Your task to perform on an android device: install app "Facebook" Image 0: 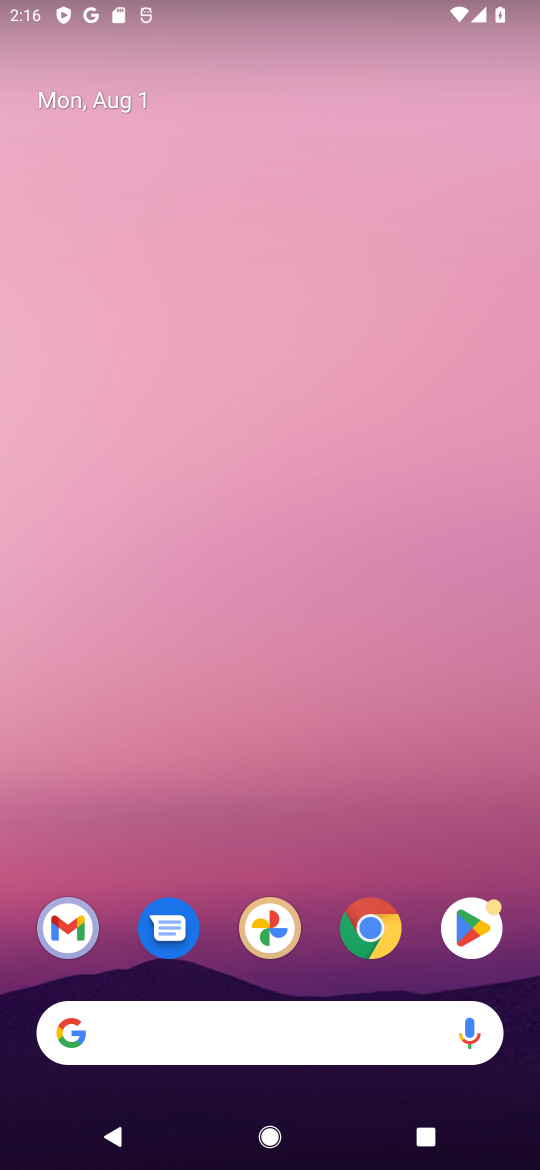
Step 0: click (458, 952)
Your task to perform on an android device: install app "Facebook" Image 1: 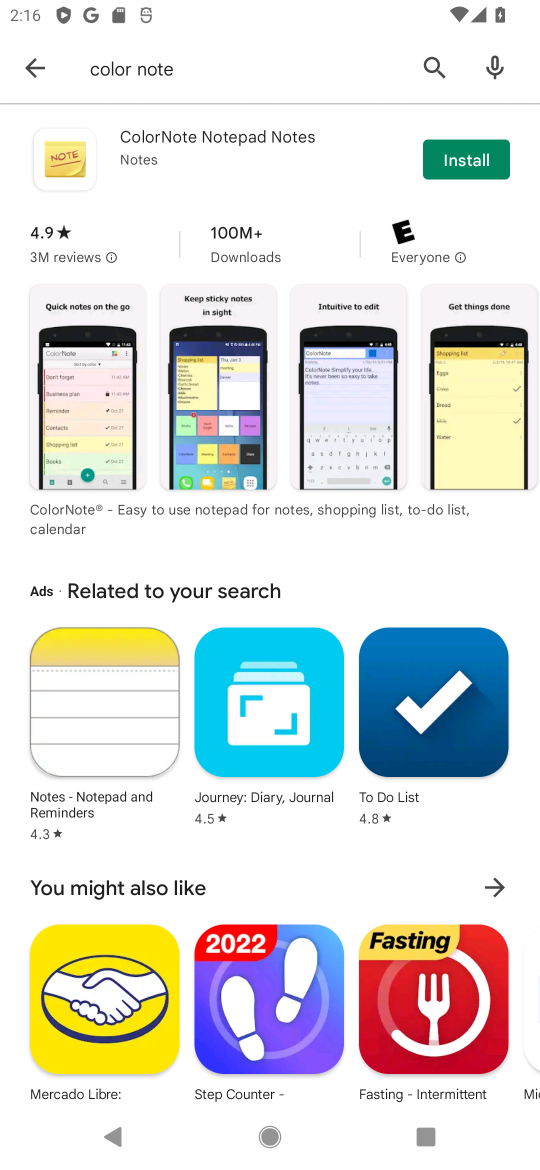
Step 1: click (435, 72)
Your task to perform on an android device: install app "Facebook" Image 2: 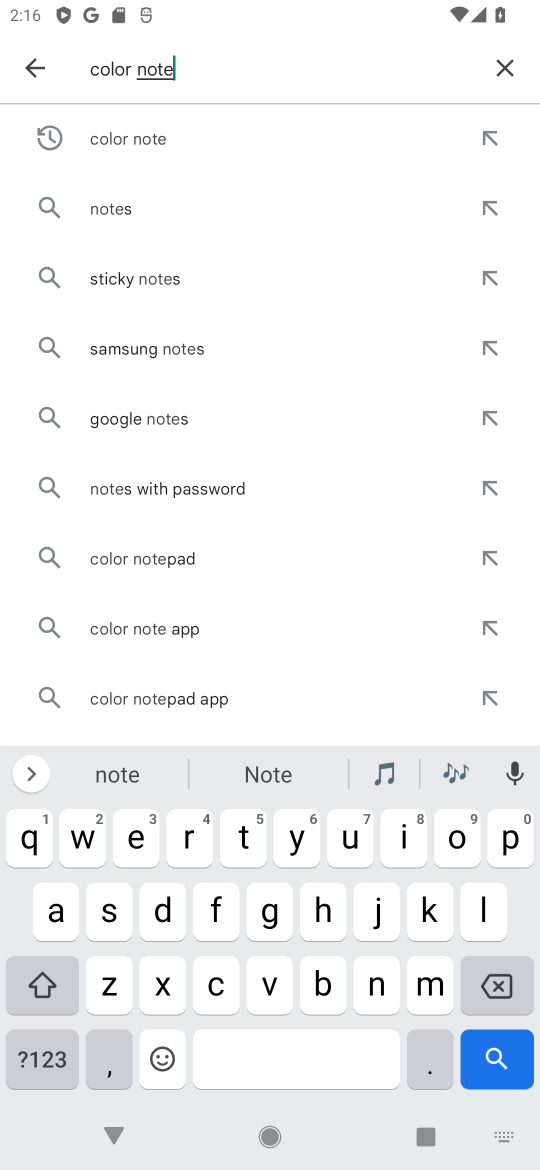
Step 2: click (511, 61)
Your task to perform on an android device: install app "Facebook" Image 3: 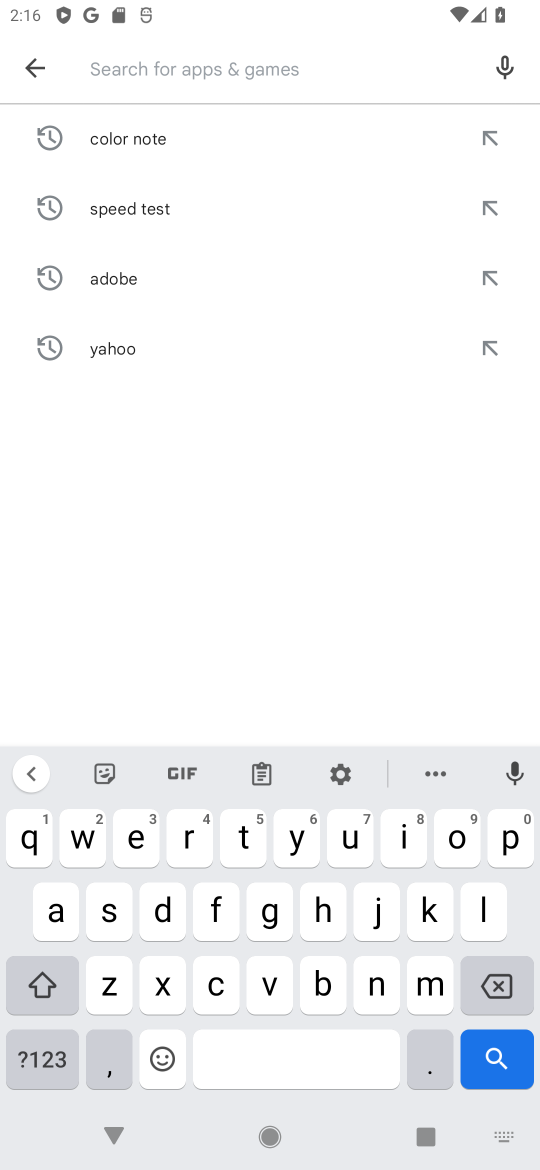
Step 3: click (214, 910)
Your task to perform on an android device: install app "Facebook" Image 4: 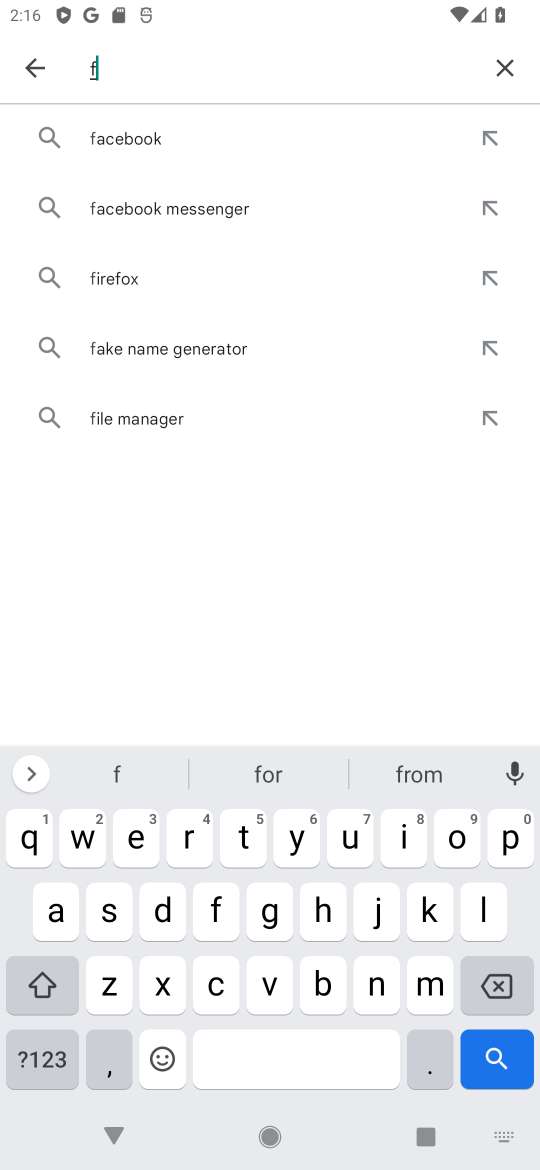
Step 4: click (42, 906)
Your task to perform on an android device: install app "Facebook" Image 5: 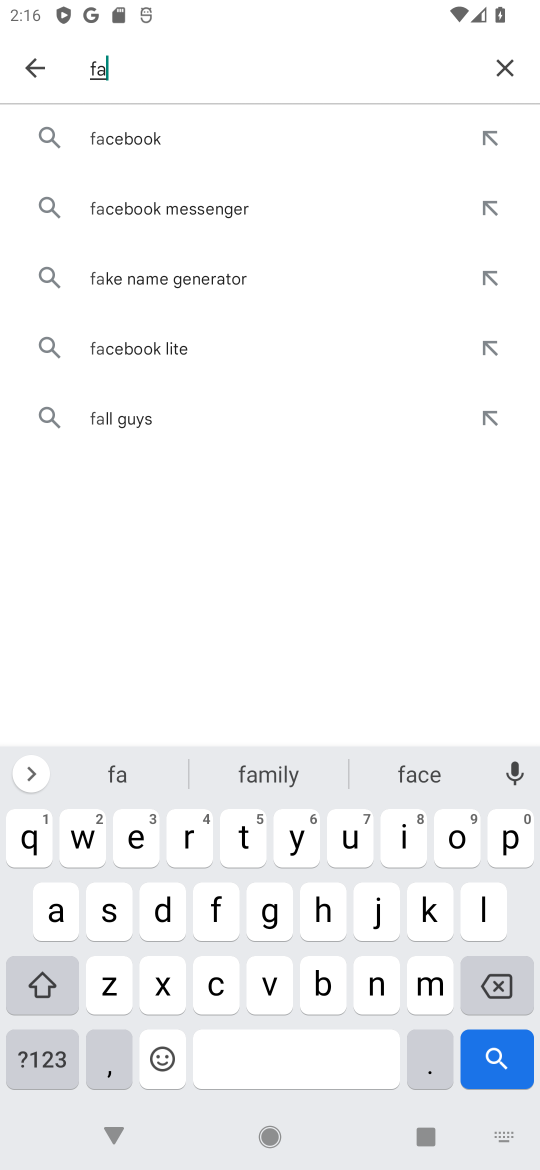
Step 5: click (137, 149)
Your task to perform on an android device: install app "Facebook" Image 6: 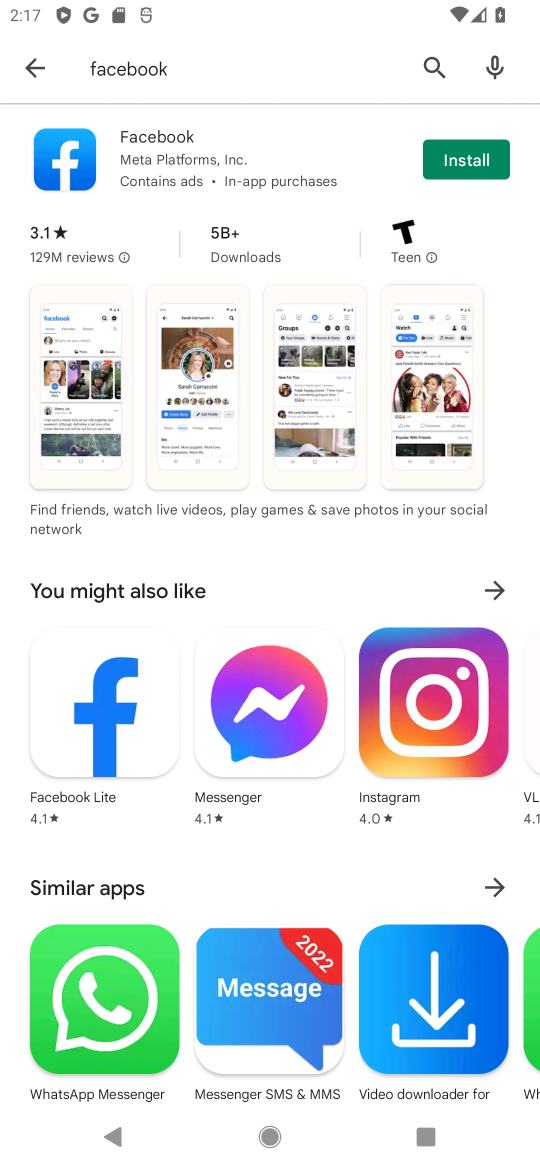
Step 6: click (430, 165)
Your task to perform on an android device: install app "Facebook" Image 7: 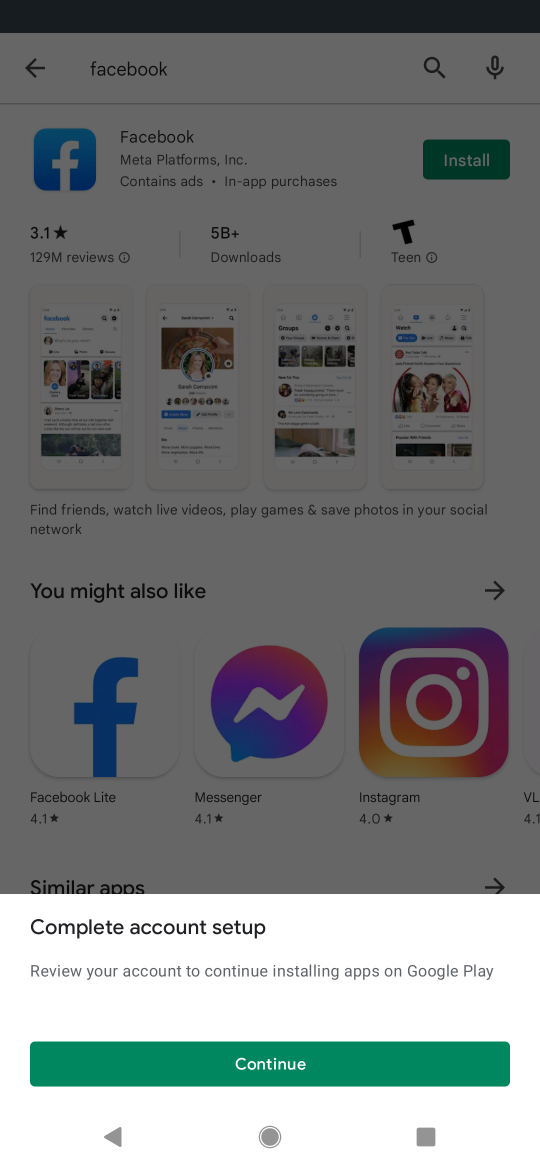
Step 7: click (247, 1073)
Your task to perform on an android device: install app "Facebook" Image 8: 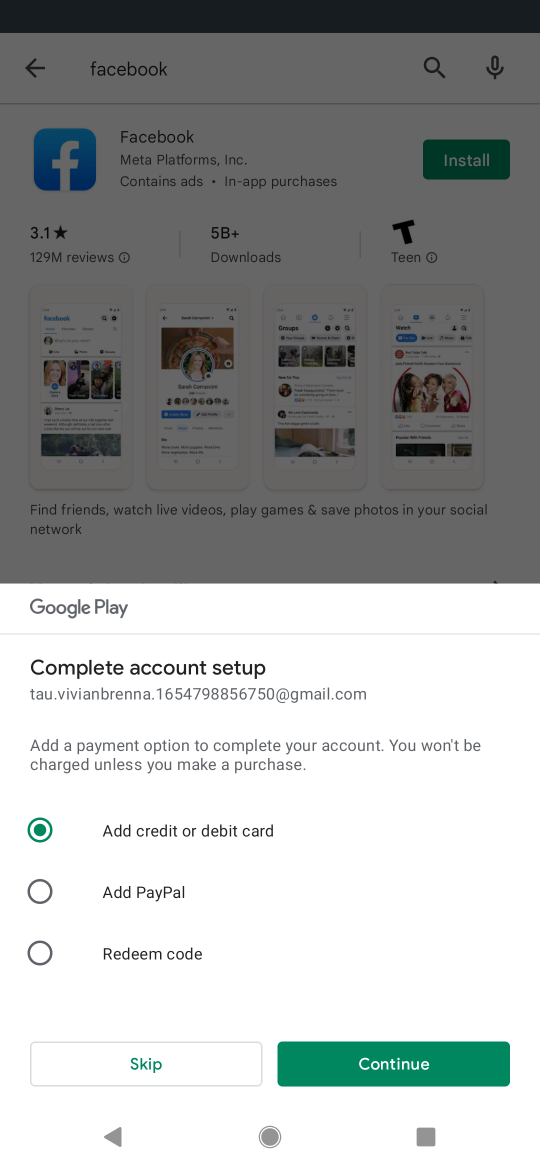
Step 8: click (145, 1065)
Your task to perform on an android device: install app "Facebook" Image 9: 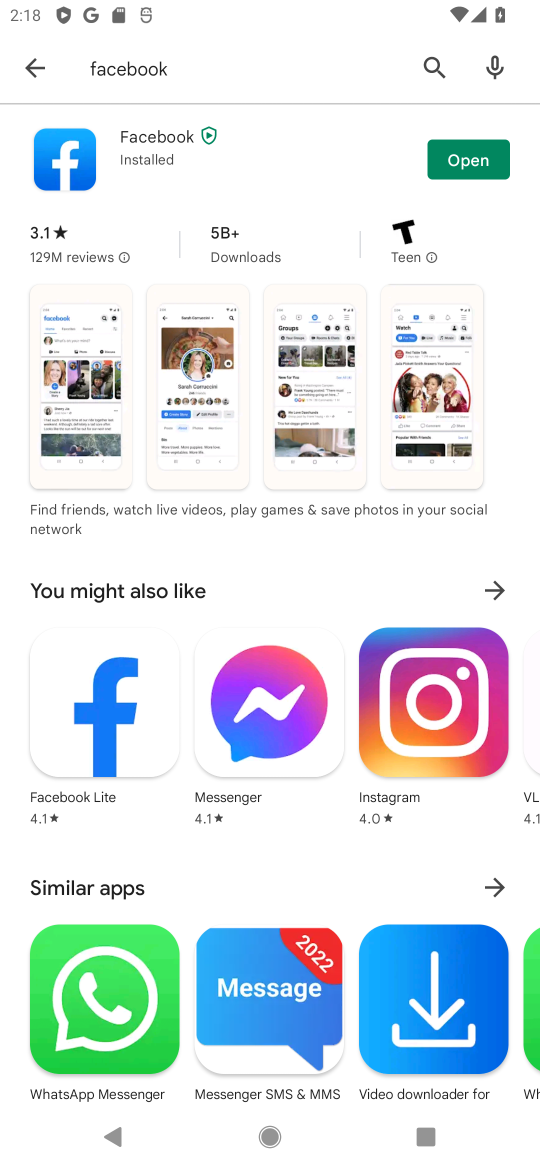
Step 9: task complete